Your task to perform on an android device: turn on javascript in the chrome app Image 0: 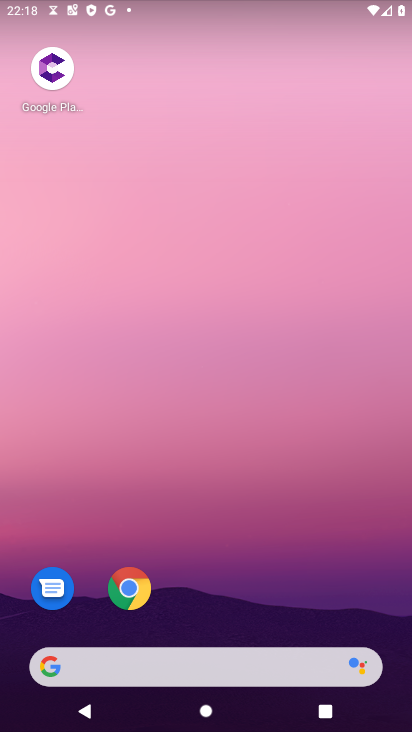
Step 0: click (129, 584)
Your task to perform on an android device: turn on javascript in the chrome app Image 1: 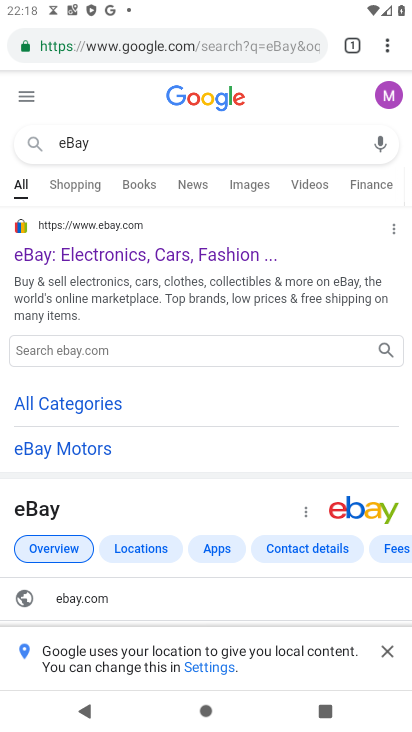
Step 1: click (387, 45)
Your task to perform on an android device: turn on javascript in the chrome app Image 2: 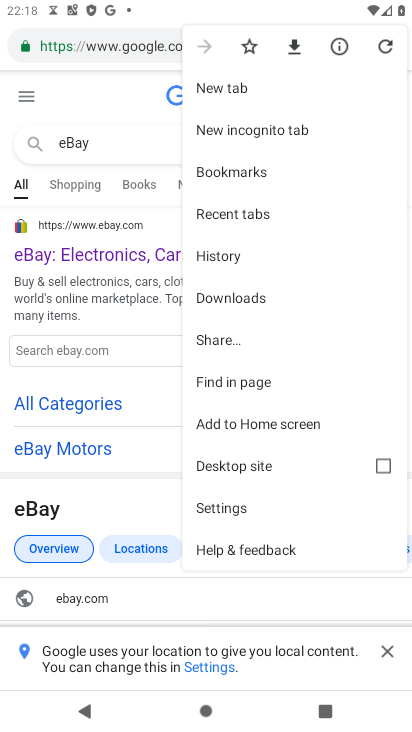
Step 2: click (226, 508)
Your task to perform on an android device: turn on javascript in the chrome app Image 3: 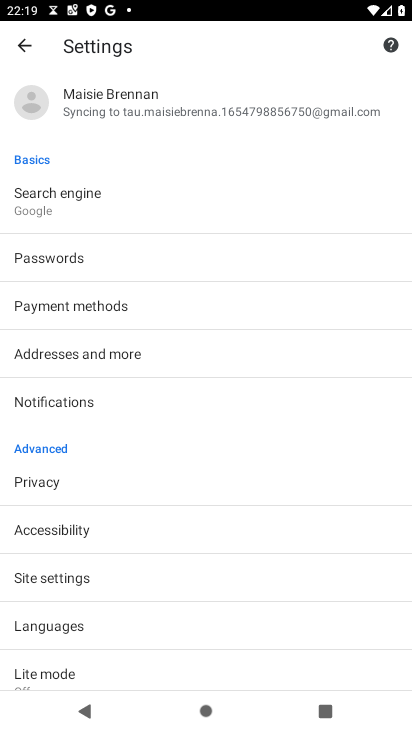
Step 3: click (64, 581)
Your task to perform on an android device: turn on javascript in the chrome app Image 4: 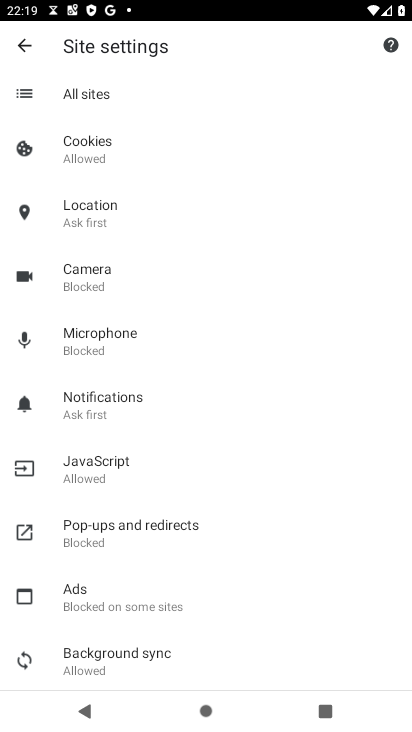
Step 4: click (86, 465)
Your task to perform on an android device: turn on javascript in the chrome app Image 5: 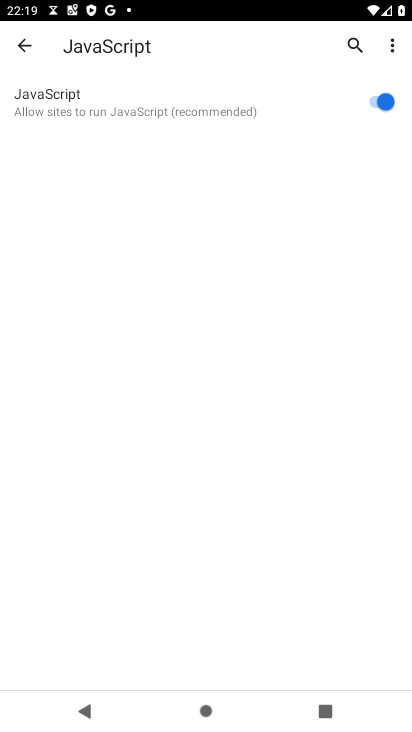
Step 5: task complete